Your task to perform on an android device: Open ESPN.com Image 0: 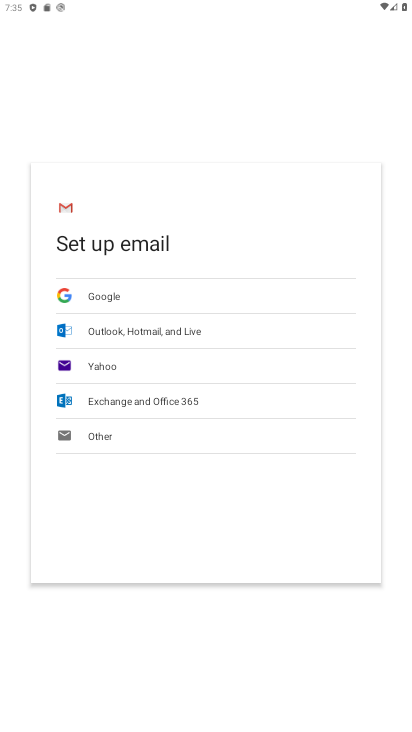
Step 0: press home button
Your task to perform on an android device: Open ESPN.com Image 1: 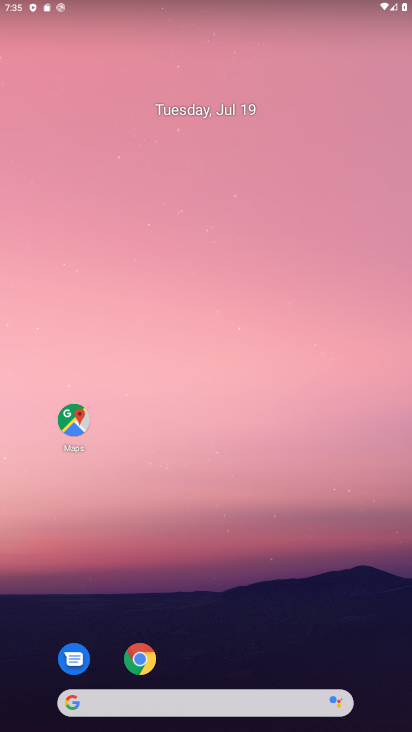
Step 1: click (141, 658)
Your task to perform on an android device: Open ESPN.com Image 2: 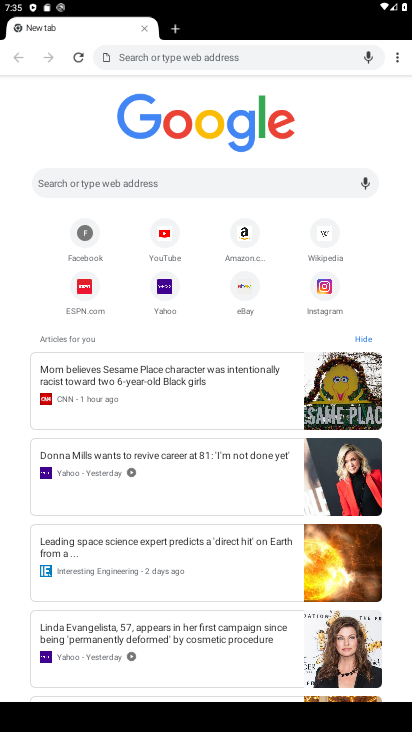
Step 2: click (77, 292)
Your task to perform on an android device: Open ESPN.com Image 3: 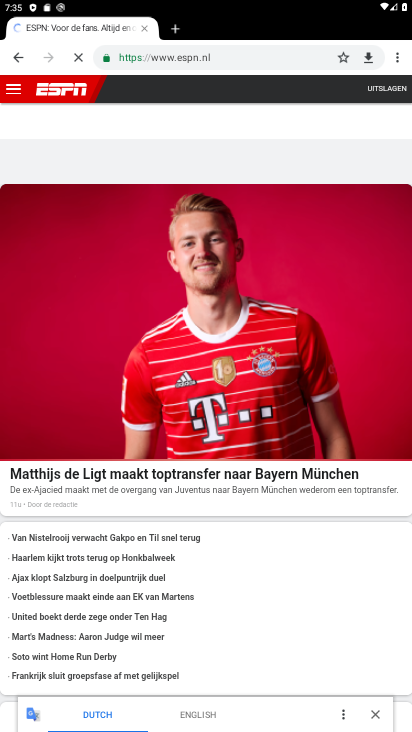
Step 3: task complete